Your task to perform on an android device: Go to display settings Image 0: 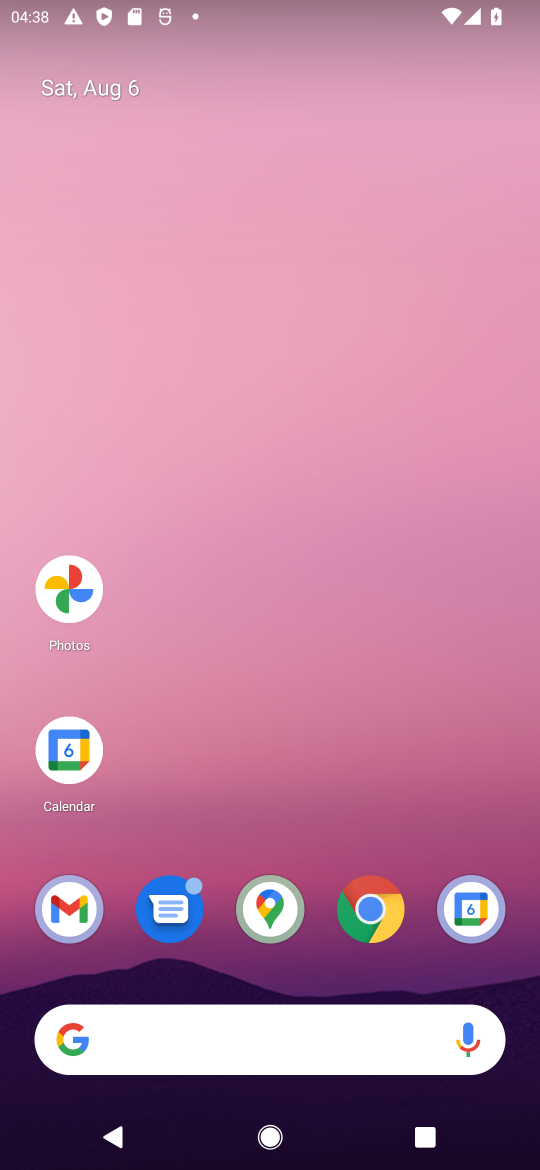
Step 0: drag from (346, 822) to (182, 53)
Your task to perform on an android device: Go to display settings Image 1: 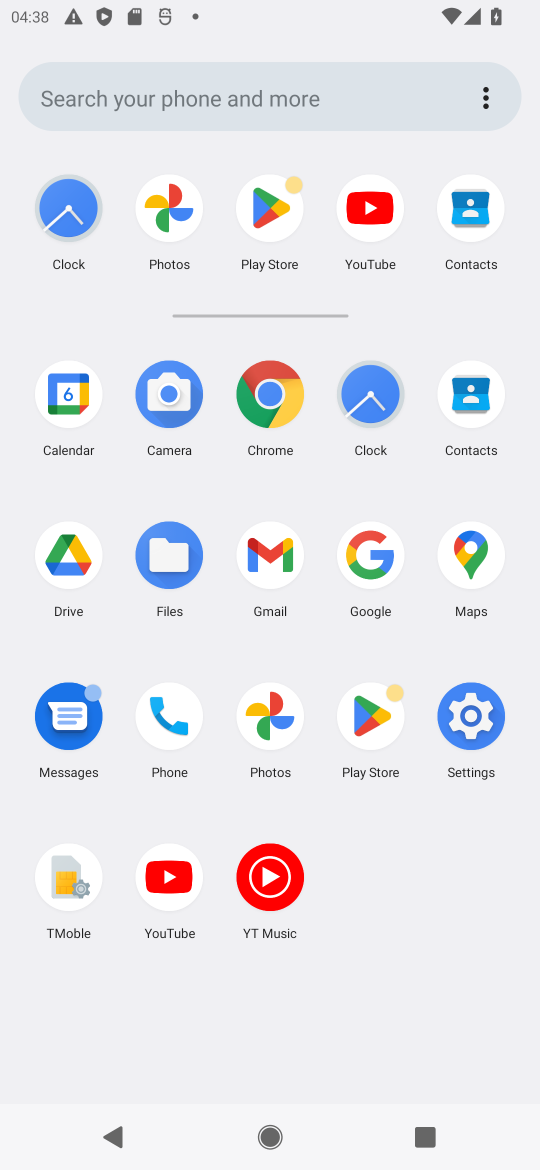
Step 1: click (470, 716)
Your task to perform on an android device: Go to display settings Image 2: 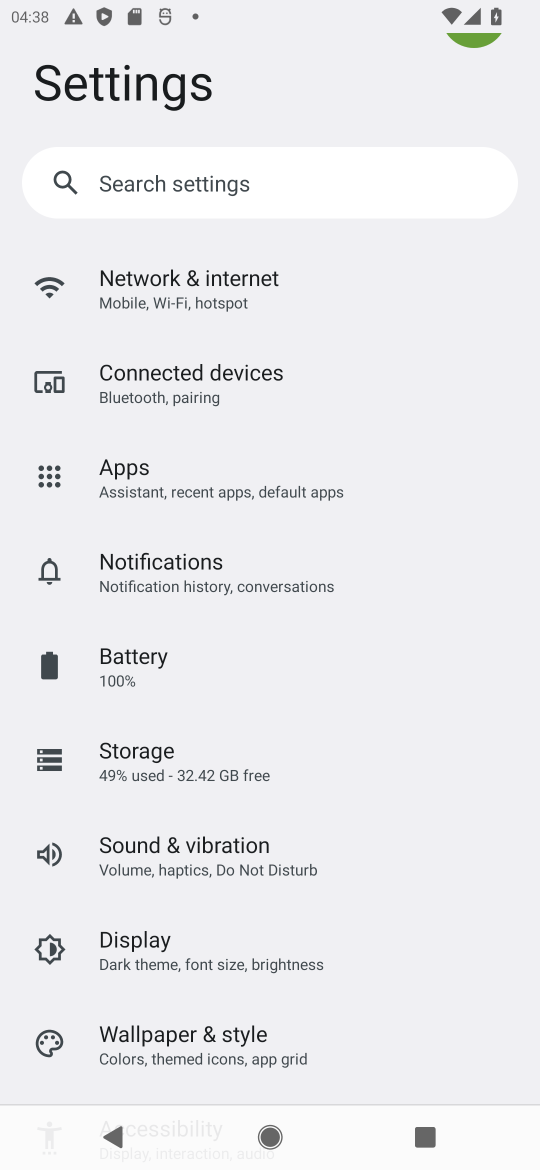
Step 2: click (134, 939)
Your task to perform on an android device: Go to display settings Image 3: 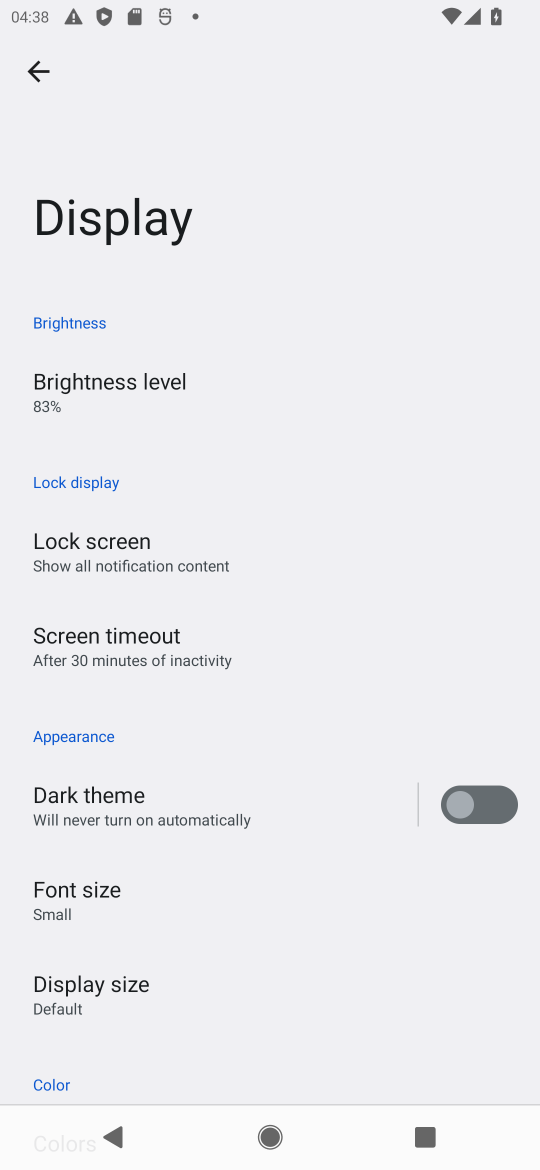
Step 3: task complete